Your task to perform on an android device: toggle javascript in the chrome app Image 0: 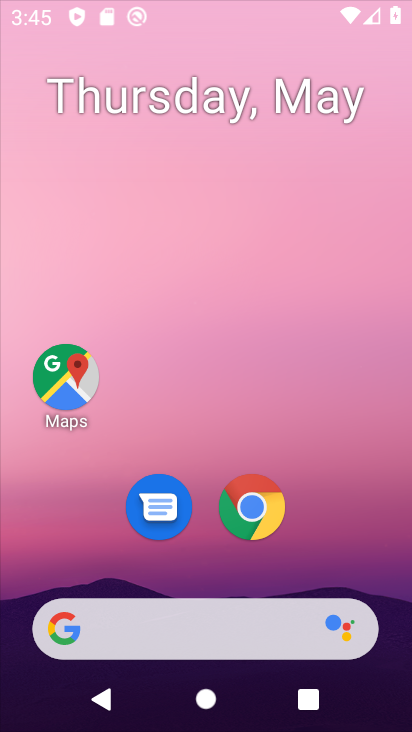
Step 0: drag from (321, 476) to (243, 42)
Your task to perform on an android device: toggle javascript in the chrome app Image 1: 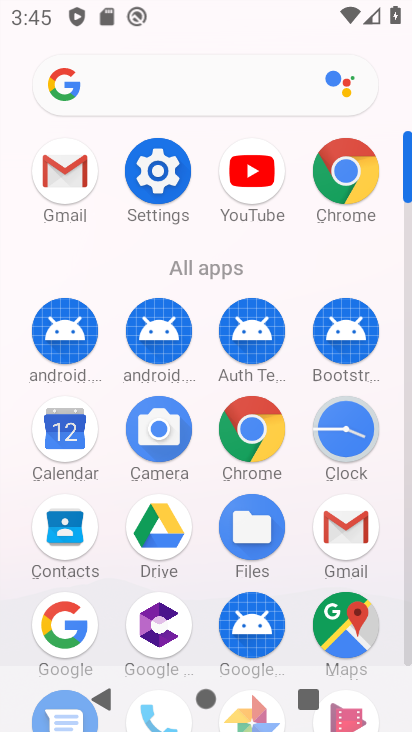
Step 1: click (345, 171)
Your task to perform on an android device: toggle javascript in the chrome app Image 2: 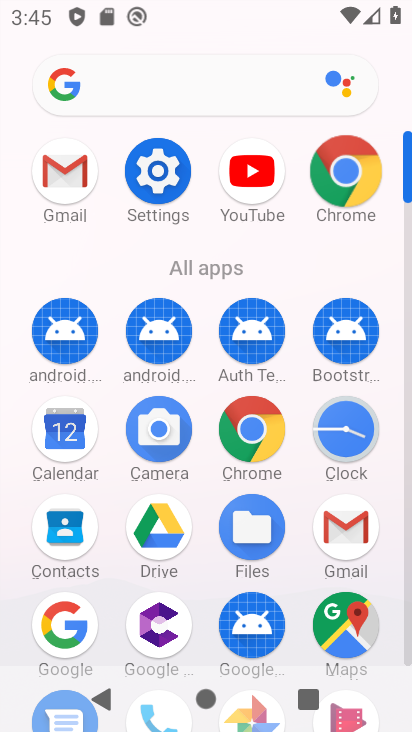
Step 2: click (345, 171)
Your task to perform on an android device: toggle javascript in the chrome app Image 3: 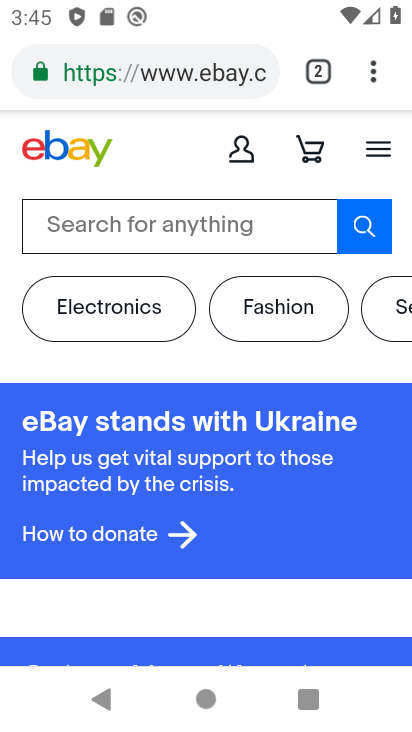
Step 3: drag from (374, 70) to (127, 503)
Your task to perform on an android device: toggle javascript in the chrome app Image 4: 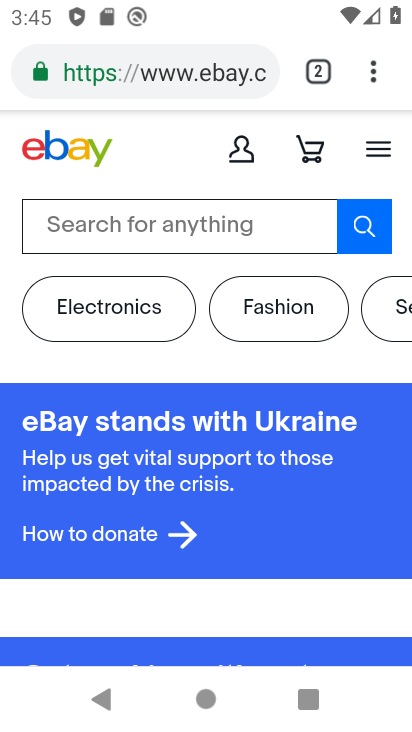
Step 4: click (118, 510)
Your task to perform on an android device: toggle javascript in the chrome app Image 5: 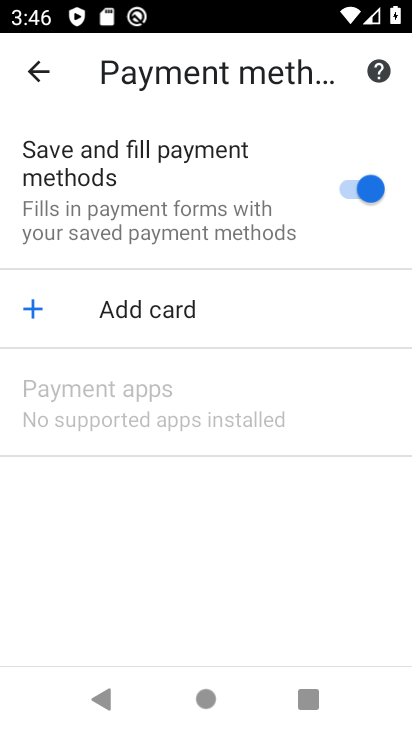
Step 5: click (31, 62)
Your task to perform on an android device: toggle javascript in the chrome app Image 6: 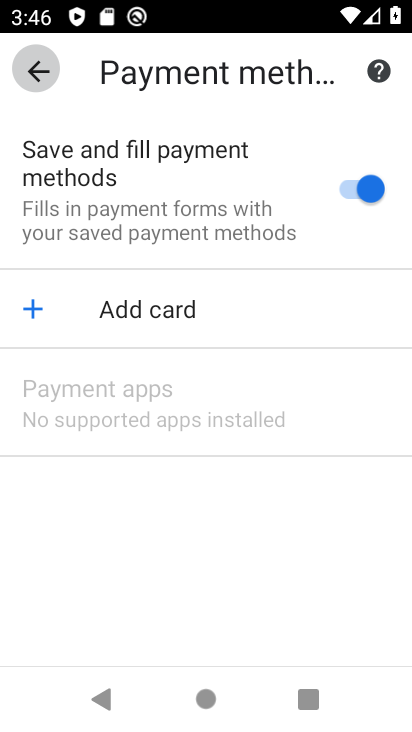
Step 6: click (31, 62)
Your task to perform on an android device: toggle javascript in the chrome app Image 7: 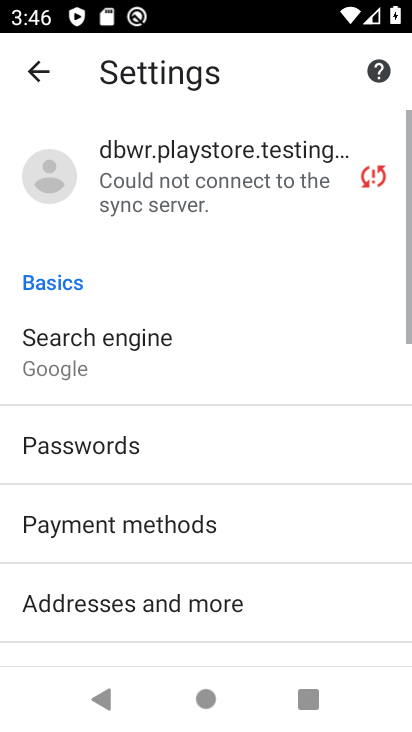
Step 7: click (32, 62)
Your task to perform on an android device: toggle javascript in the chrome app Image 8: 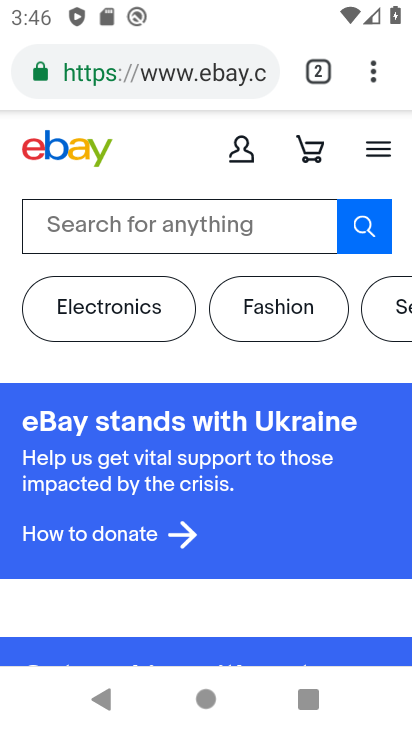
Step 8: drag from (359, 76) to (119, 514)
Your task to perform on an android device: toggle javascript in the chrome app Image 9: 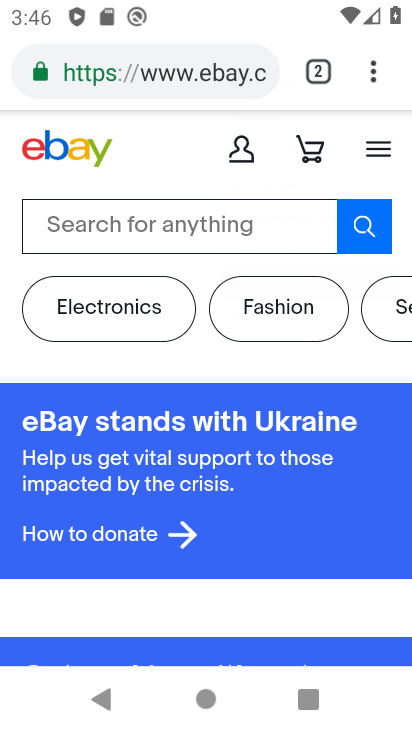
Step 9: click (121, 512)
Your task to perform on an android device: toggle javascript in the chrome app Image 10: 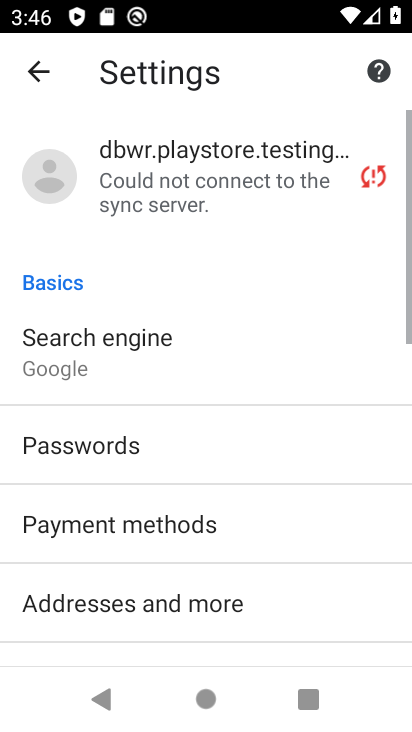
Step 10: drag from (107, 496) to (17, 126)
Your task to perform on an android device: toggle javascript in the chrome app Image 11: 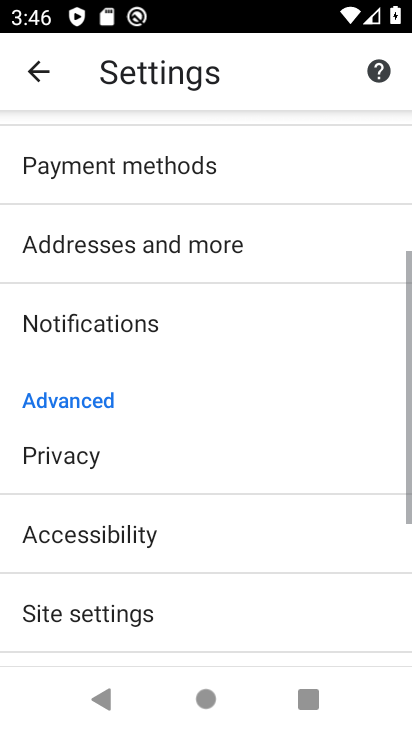
Step 11: drag from (98, 405) to (33, 104)
Your task to perform on an android device: toggle javascript in the chrome app Image 12: 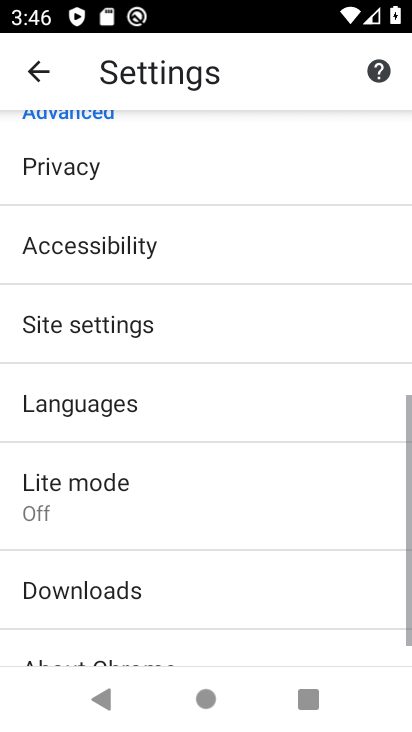
Step 12: drag from (151, 451) to (99, 98)
Your task to perform on an android device: toggle javascript in the chrome app Image 13: 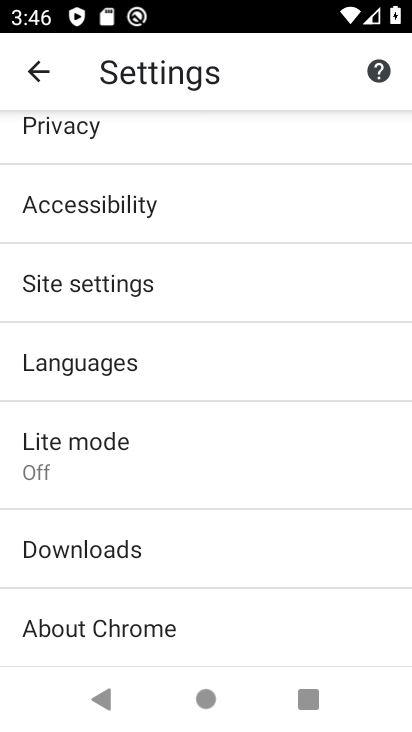
Step 13: click (68, 286)
Your task to perform on an android device: toggle javascript in the chrome app Image 14: 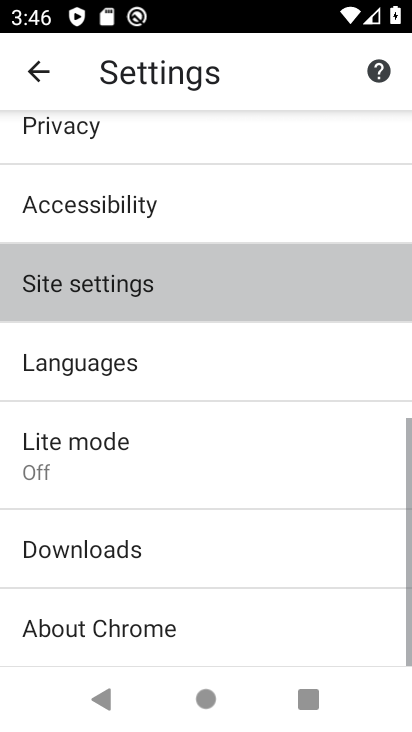
Step 14: click (70, 284)
Your task to perform on an android device: toggle javascript in the chrome app Image 15: 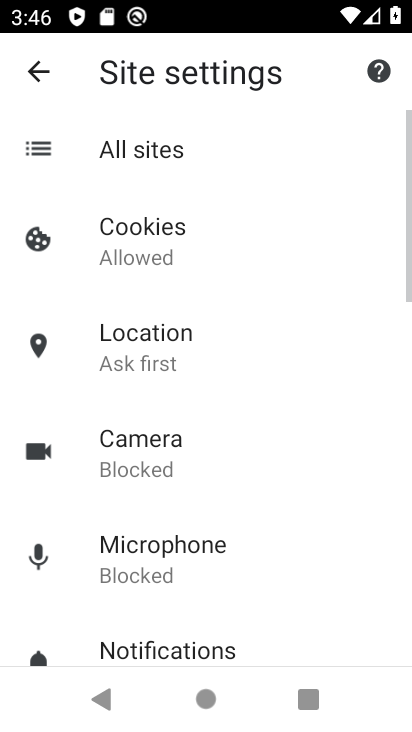
Step 15: drag from (159, 484) to (140, 177)
Your task to perform on an android device: toggle javascript in the chrome app Image 16: 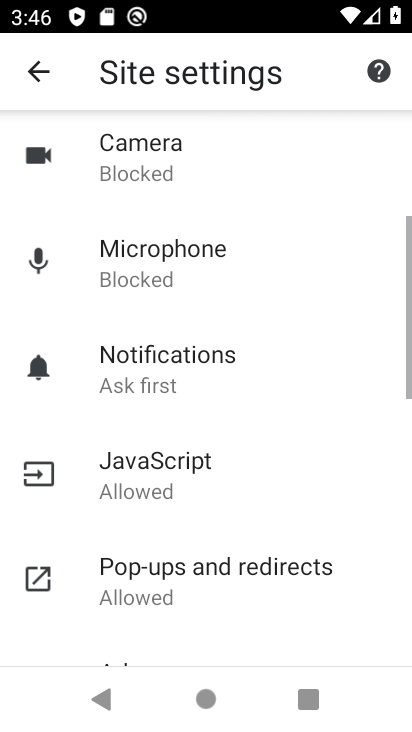
Step 16: drag from (229, 382) to (213, 144)
Your task to perform on an android device: toggle javascript in the chrome app Image 17: 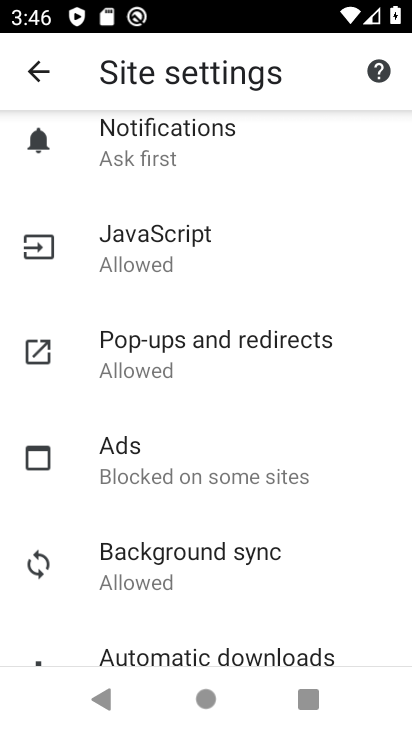
Step 17: click (147, 246)
Your task to perform on an android device: toggle javascript in the chrome app Image 18: 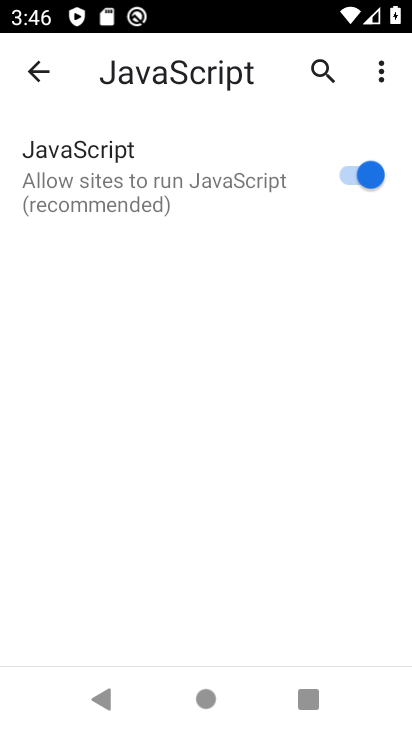
Step 18: click (357, 168)
Your task to perform on an android device: toggle javascript in the chrome app Image 19: 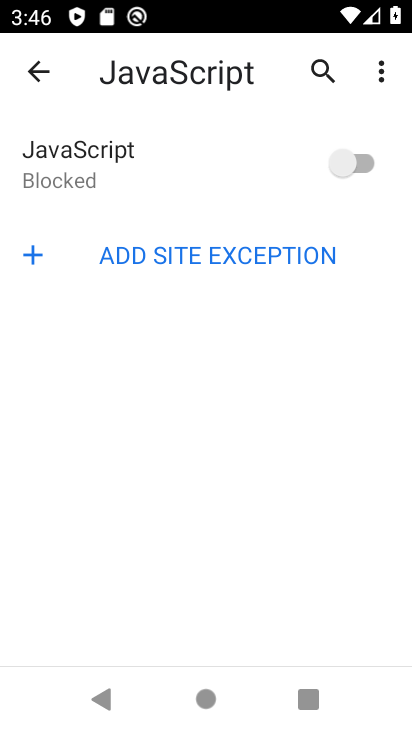
Step 19: task complete